Your task to perform on an android device: Find a nice sofa on eBay Image 0: 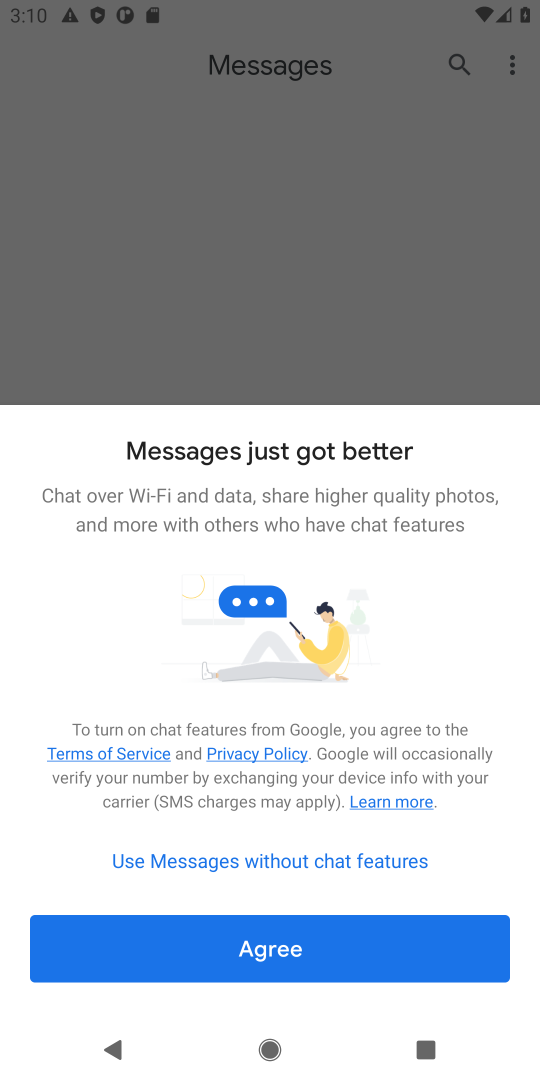
Step 0: press home button
Your task to perform on an android device: Find a nice sofa on eBay Image 1: 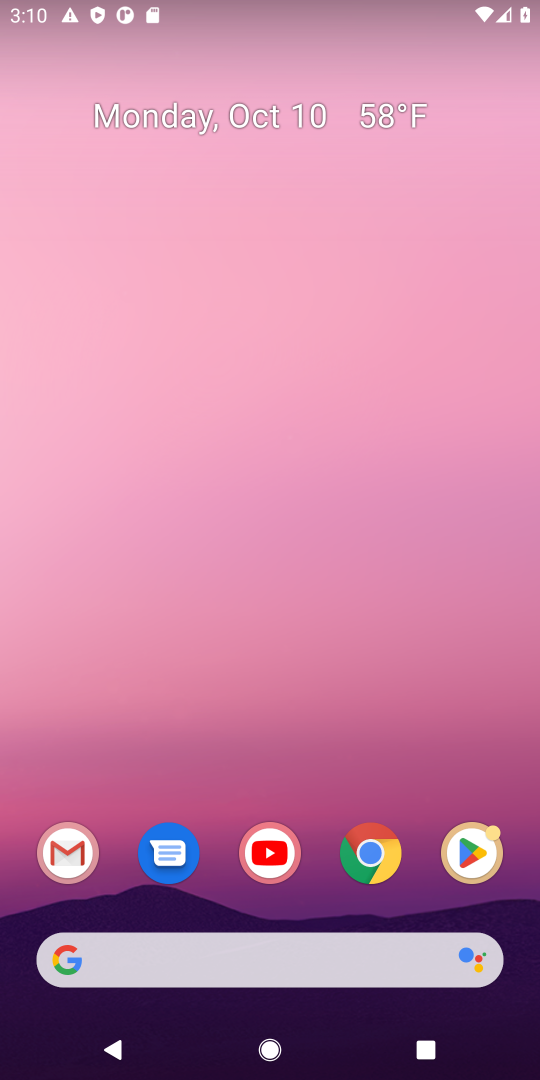
Step 1: click (257, 965)
Your task to perform on an android device: Find a nice sofa on eBay Image 2: 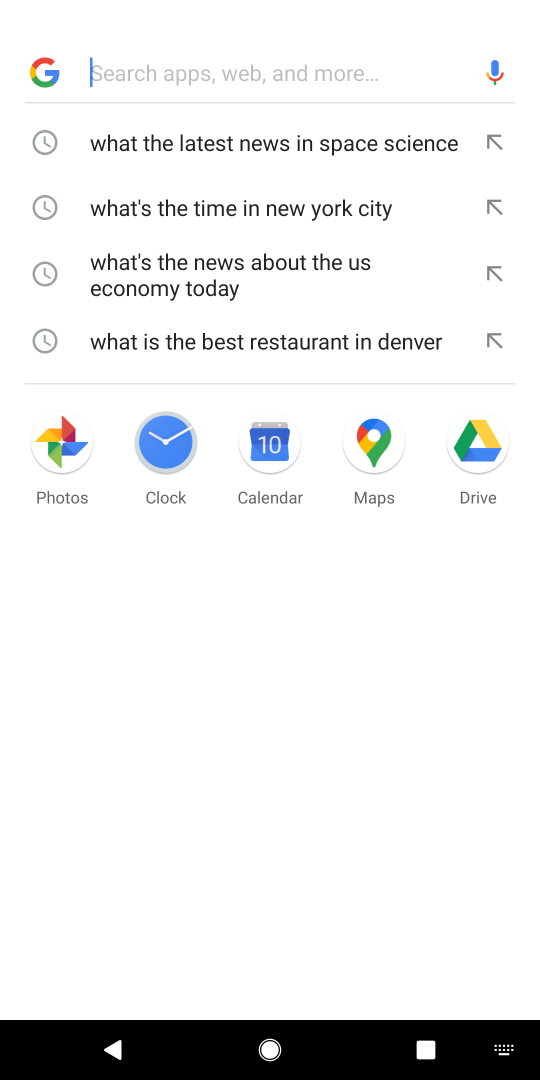
Step 2: click (156, 63)
Your task to perform on an android device: Find a nice sofa on eBay Image 3: 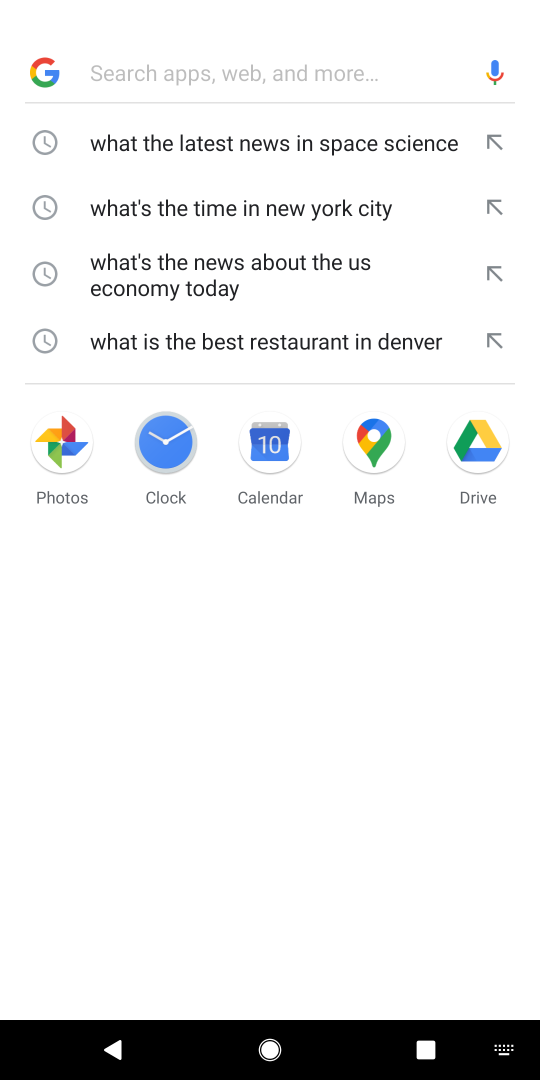
Step 3: type "nice sofa on eBay"
Your task to perform on an android device: Find a nice sofa on eBay Image 4: 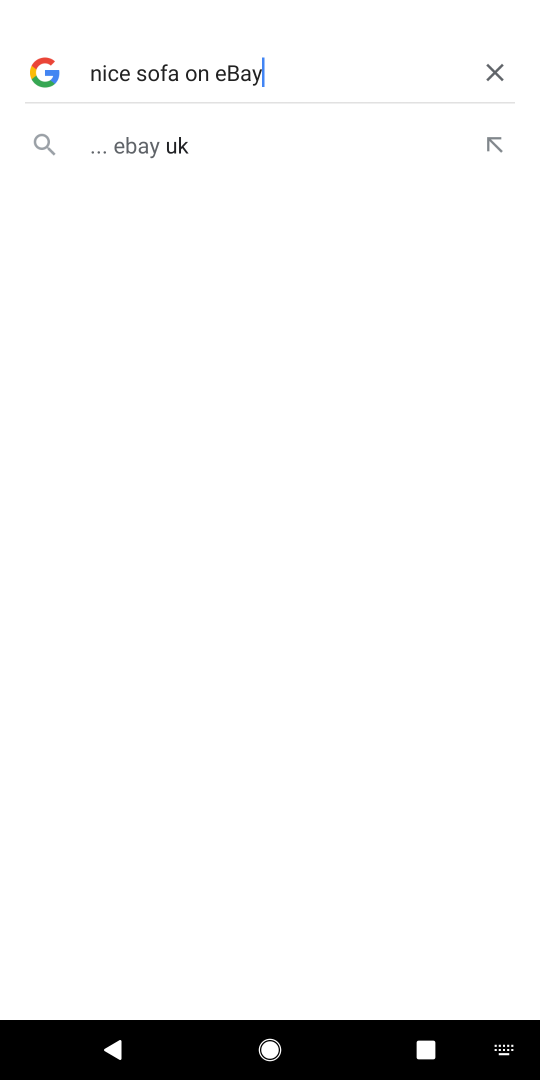
Step 4: click (192, 147)
Your task to perform on an android device: Find a nice sofa on eBay Image 5: 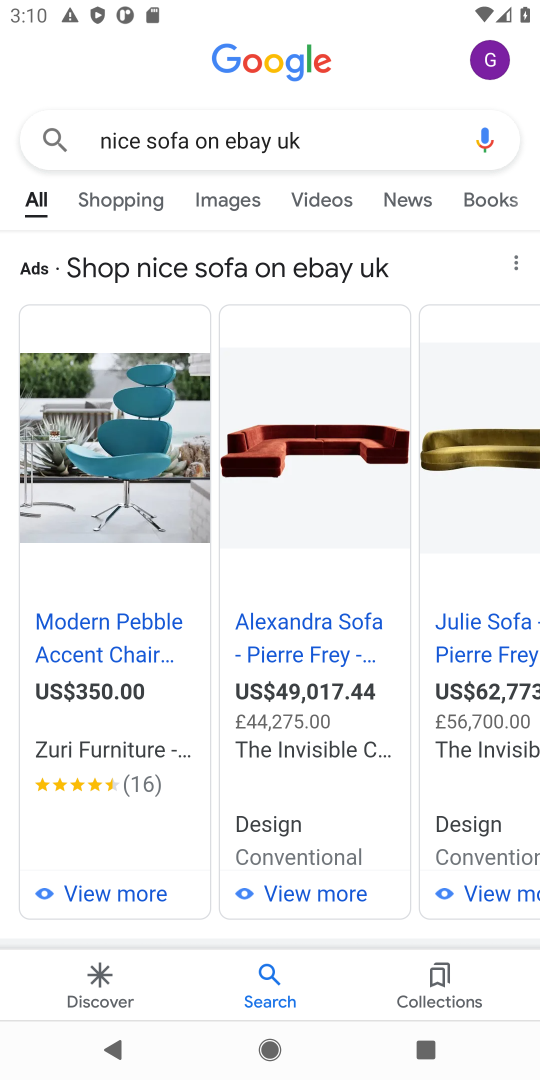
Step 5: task complete